Your task to perform on an android device: open a new tab in the chrome app Image 0: 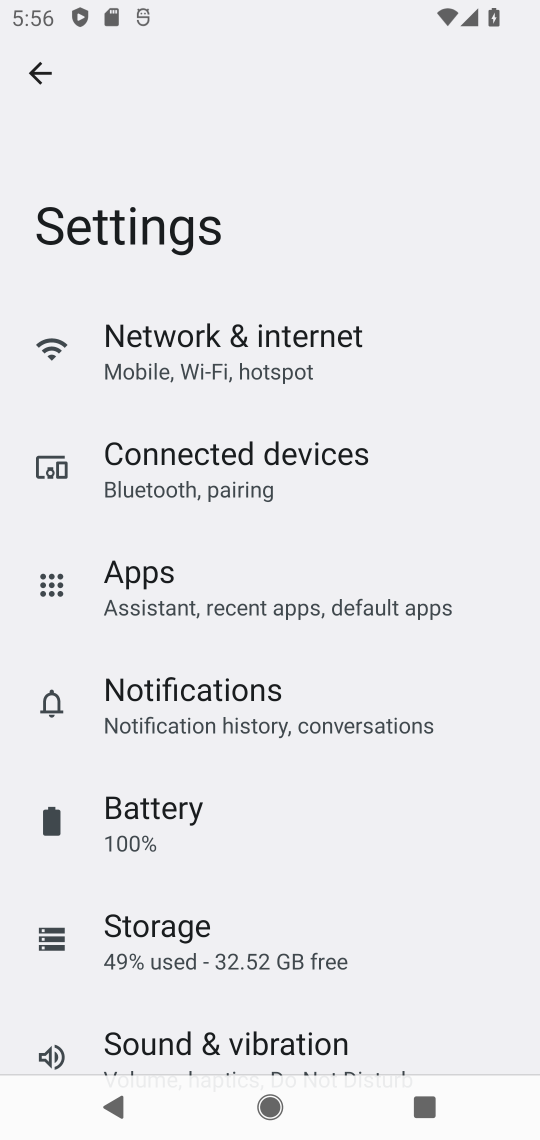
Step 0: press home button
Your task to perform on an android device: open a new tab in the chrome app Image 1: 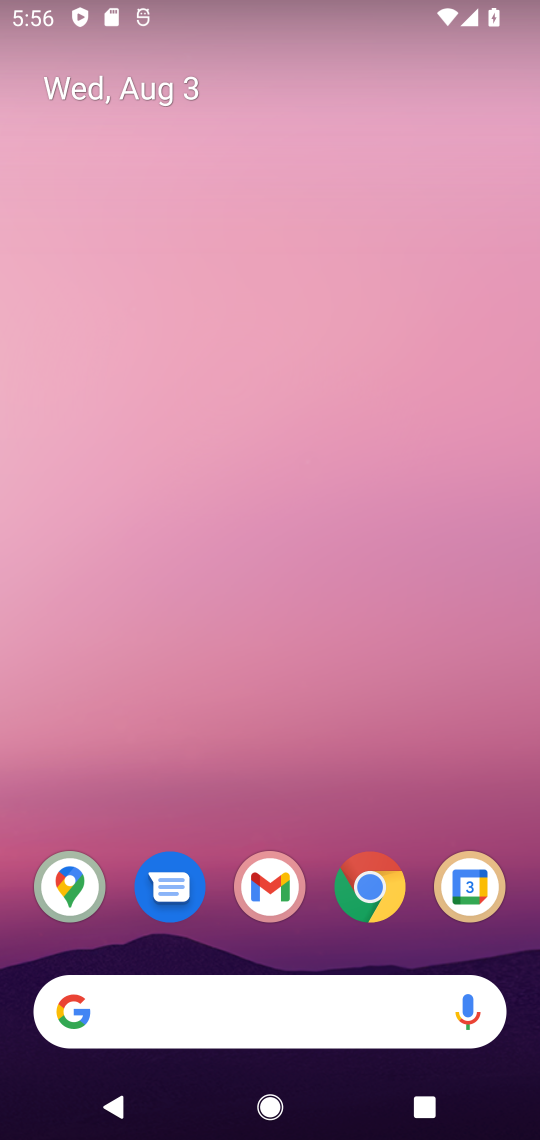
Step 1: click (365, 873)
Your task to perform on an android device: open a new tab in the chrome app Image 2: 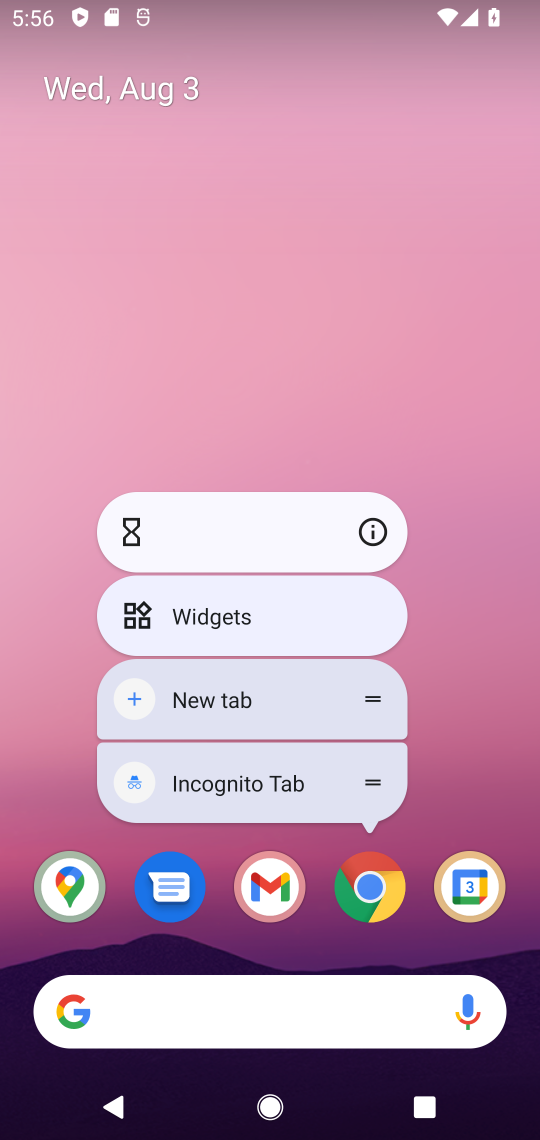
Step 2: click (369, 871)
Your task to perform on an android device: open a new tab in the chrome app Image 3: 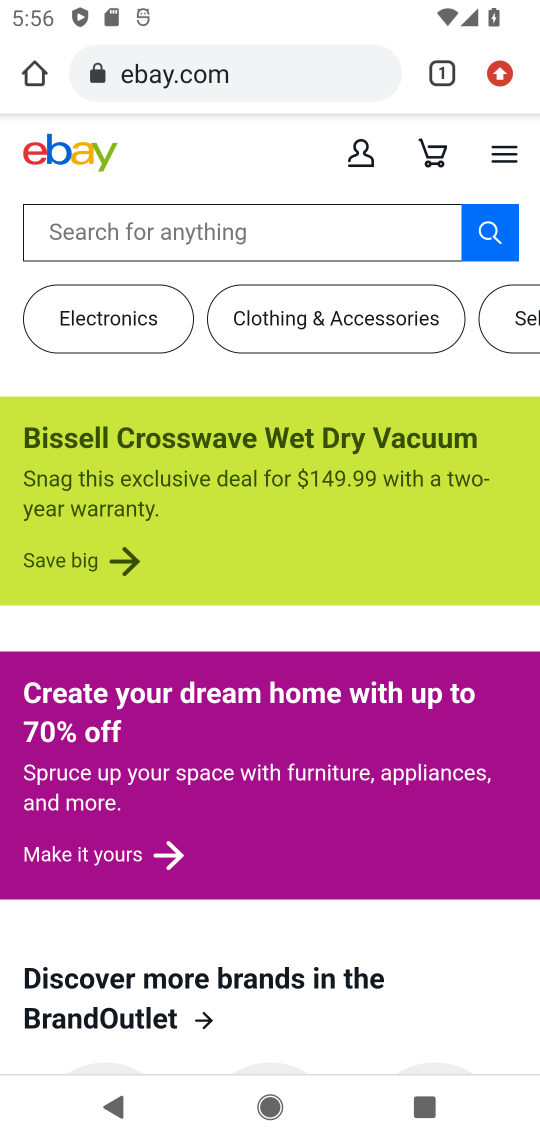
Step 3: click (428, 74)
Your task to perform on an android device: open a new tab in the chrome app Image 4: 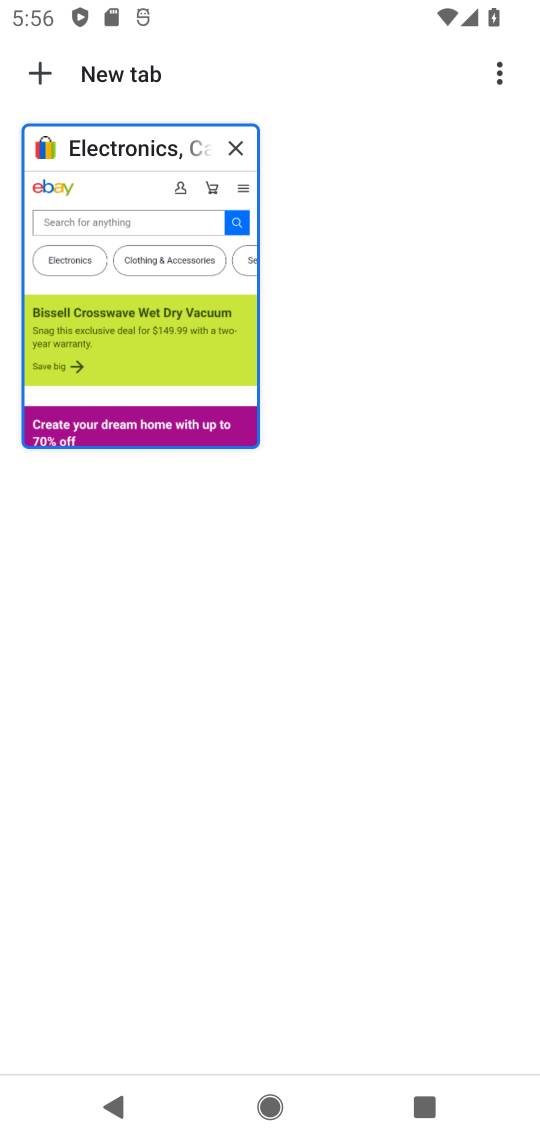
Step 4: click (38, 75)
Your task to perform on an android device: open a new tab in the chrome app Image 5: 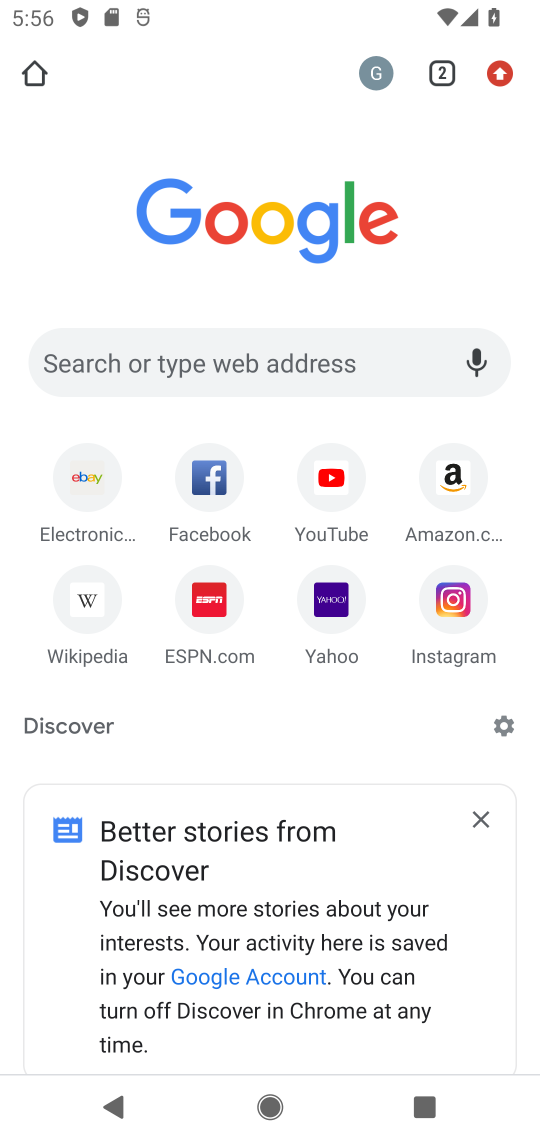
Step 5: task complete